Your task to perform on an android device: Go to Google maps Image 0: 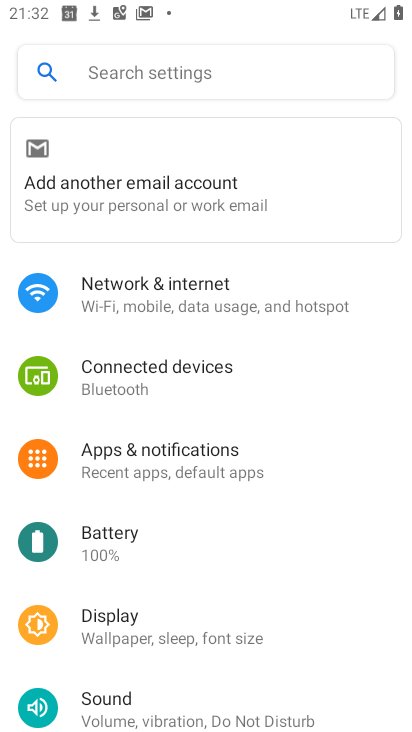
Step 0: press home button
Your task to perform on an android device: Go to Google maps Image 1: 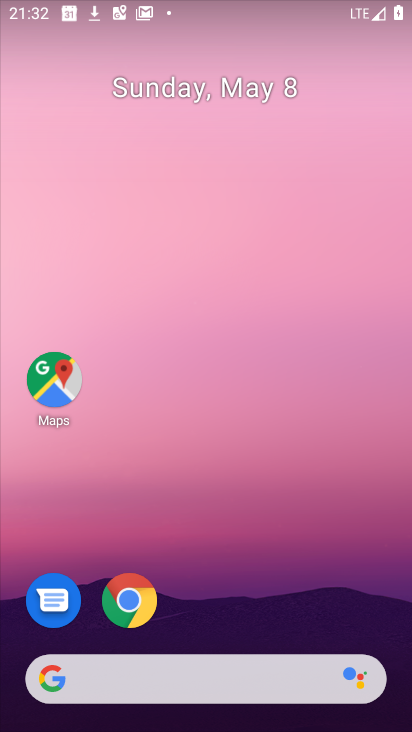
Step 1: drag from (338, 707) to (285, 280)
Your task to perform on an android device: Go to Google maps Image 2: 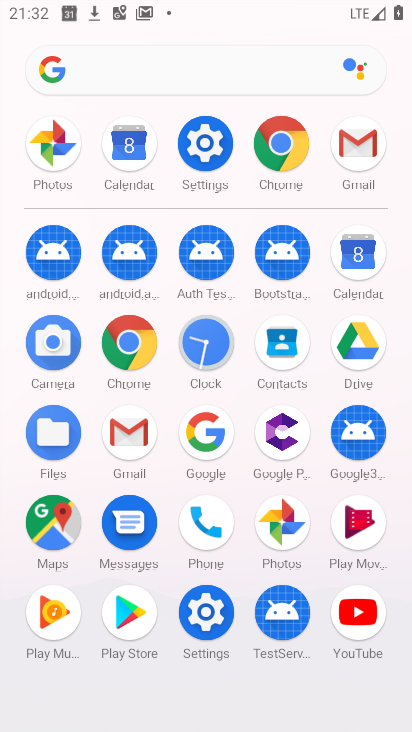
Step 2: click (54, 529)
Your task to perform on an android device: Go to Google maps Image 3: 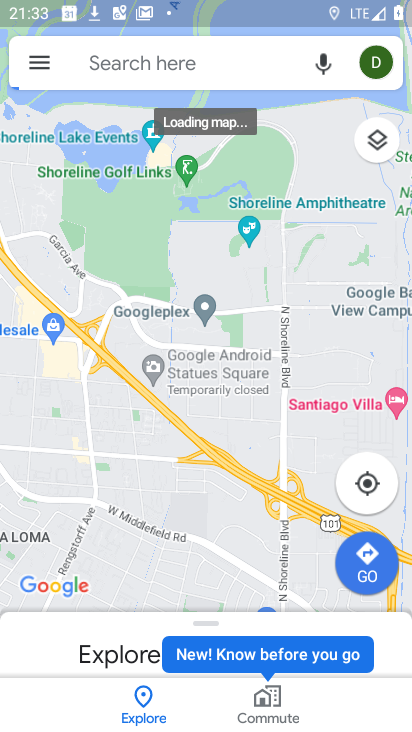
Step 3: task complete